Your task to perform on an android device: Open display settings Image 0: 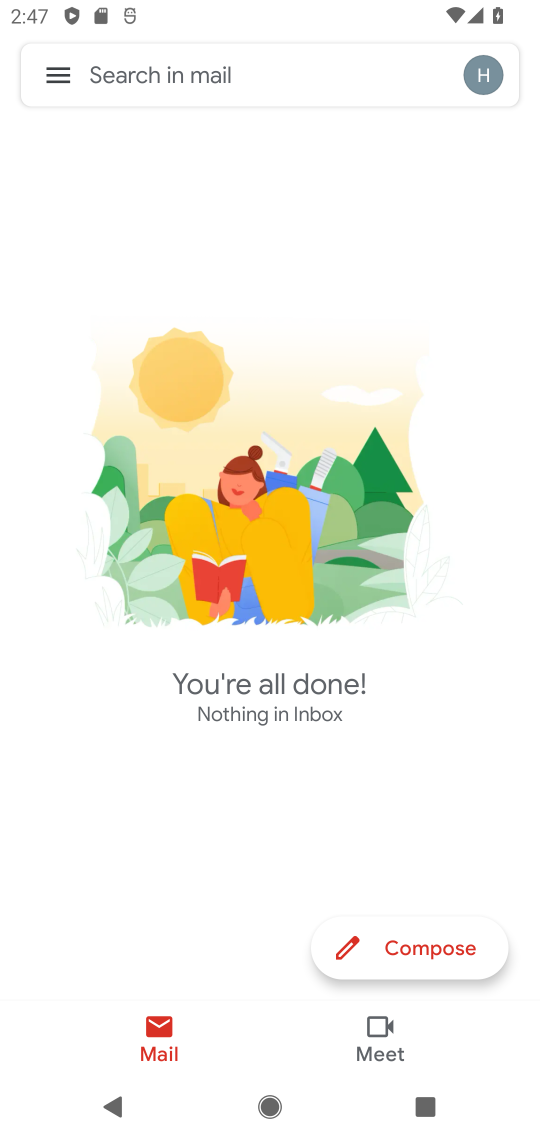
Step 0: press home button
Your task to perform on an android device: Open display settings Image 1: 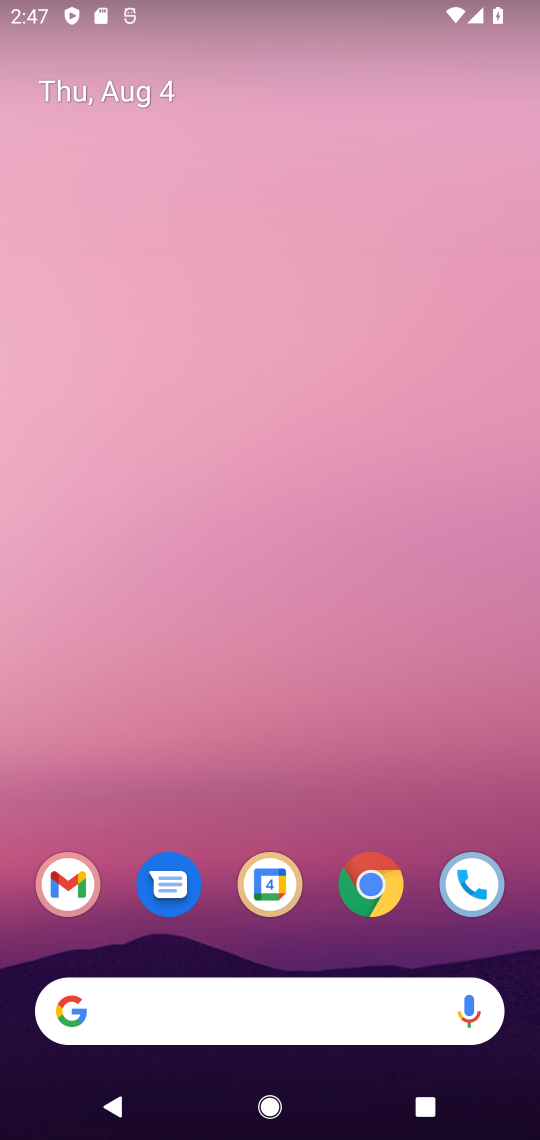
Step 1: drag from (251, 953) to (354, 434)
Your task to perform on an android device: Open display settings Image 2: 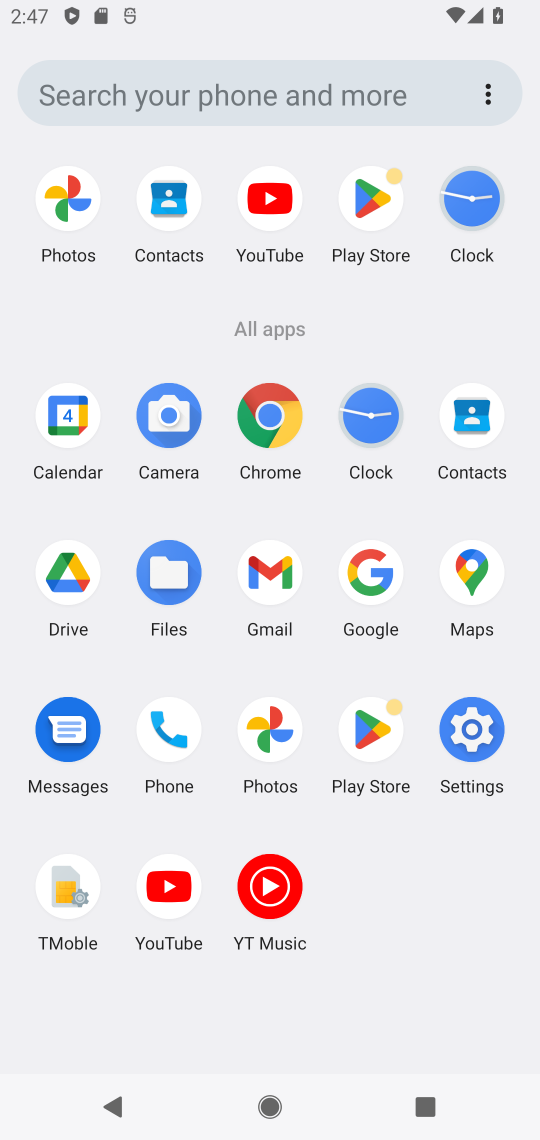
Step 2: click (460, 733)
Your task to perform on an android device: Open display settings Image 3: 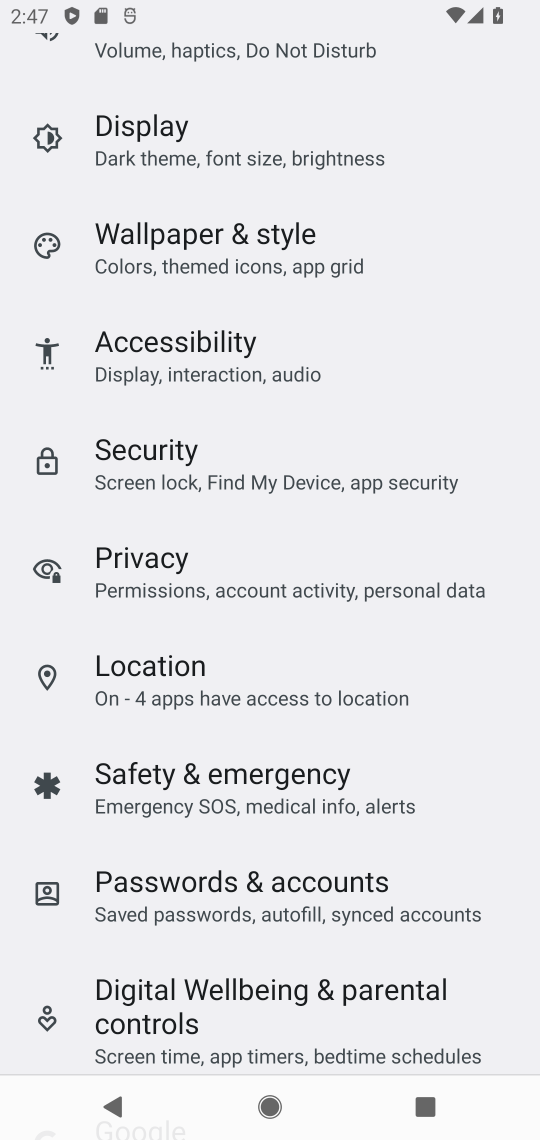
Step 3: click (164, 135)
Your task to perform on an android device: Open display settings Image 4: 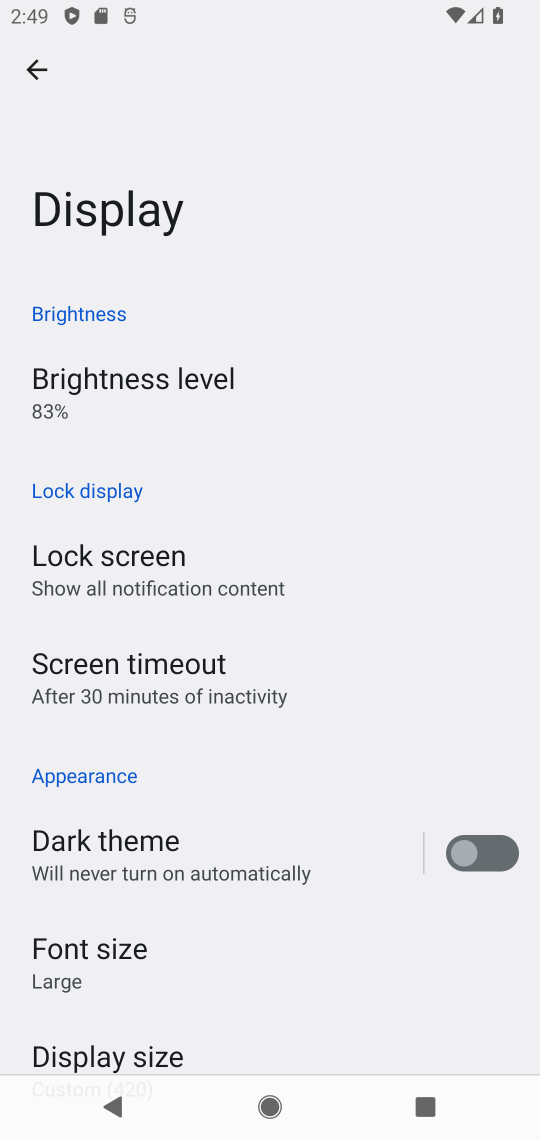
Step 4: task complete